Your task to perform on an android device: Go to eBay Image 0: 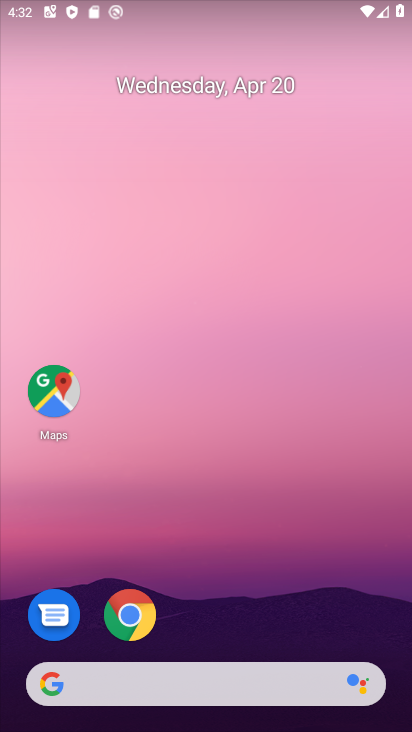
Step 0: click (129, 608)
Your task to perform on an android device: Go to eBay Image 1: 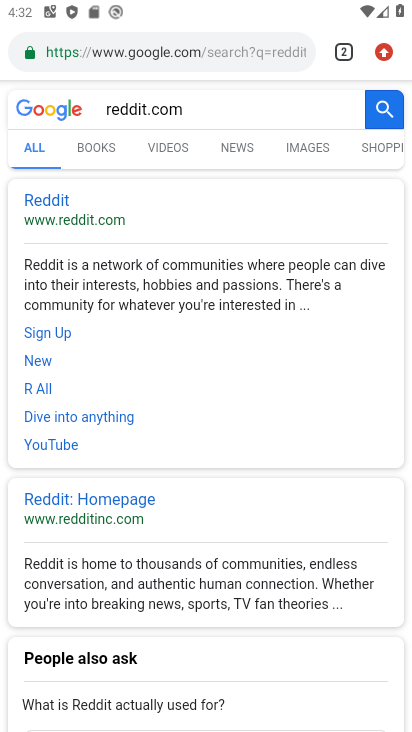
Step 1: click (195, 48)
Your task to perform on an android device: Go to eBay Image 2: 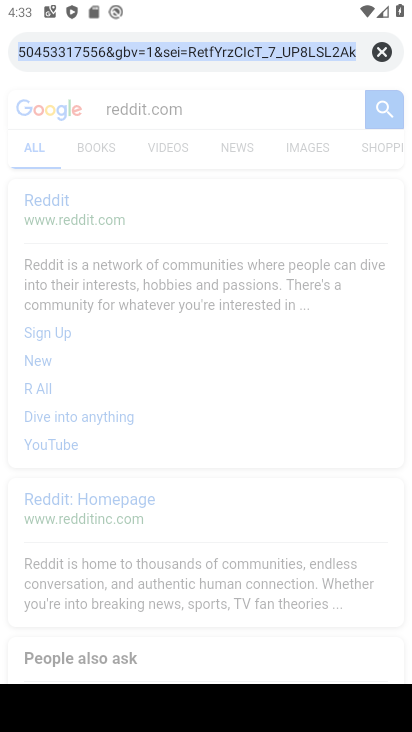
Step 2: type "eBay"
Your task to perform on an android device: Go to eBay Image 3: 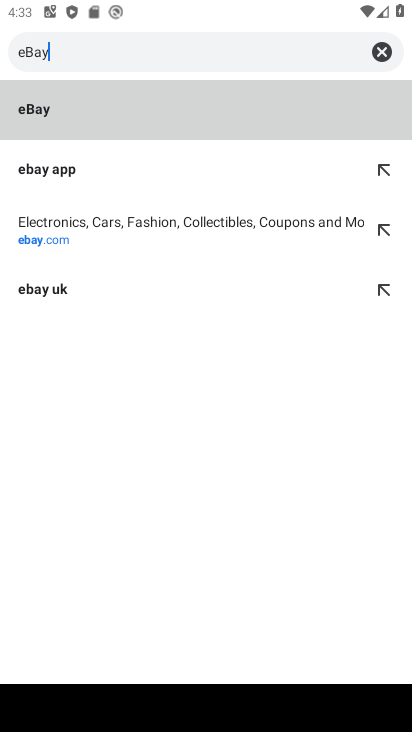
Step 3: click (50, 112)
Your task to perform on an android device: Go to eBay Image 4: 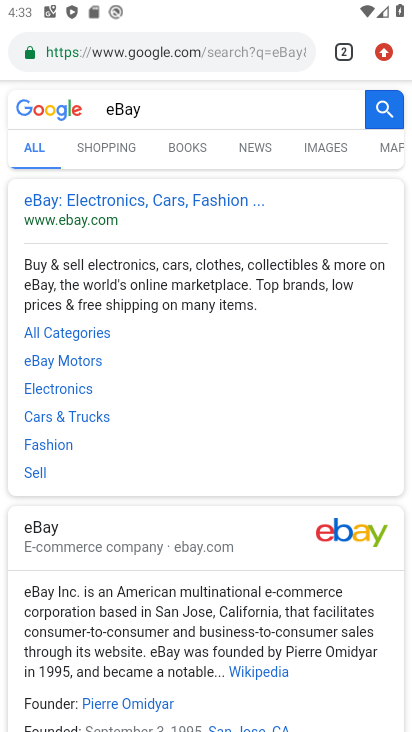
Step 4: task complete